Your task to perform on an android device: Open display settings Image 0: 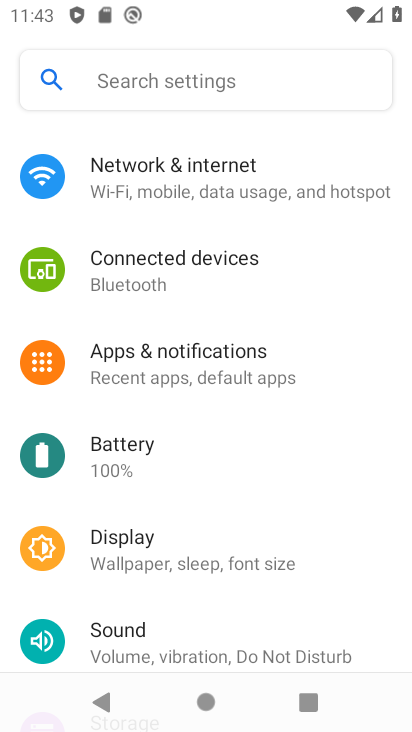
Step 0: press home button
Your task to perform on an android device: Open display settings Image 1: 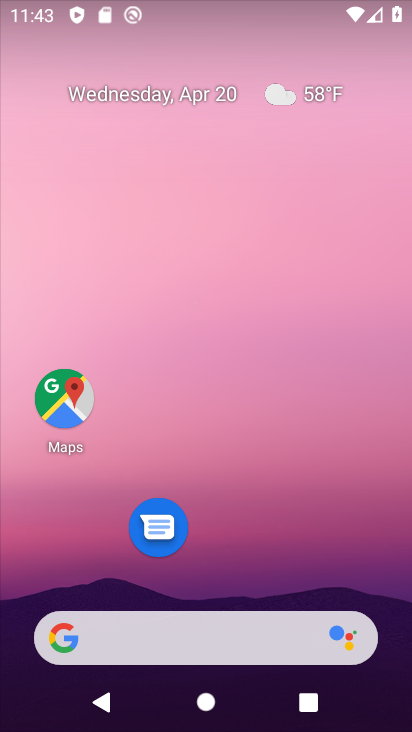
Step 1: drag from (224, 638) to (224, 98)
Your task to perform on an android device: Open display settings Image 2: 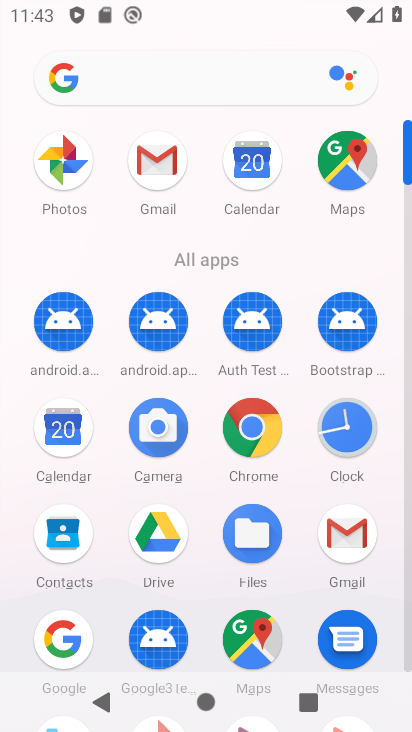
Step 2: drag from (208, 633) to (192, 233)
Your task to perform on an android device: Open display settings Image 3: 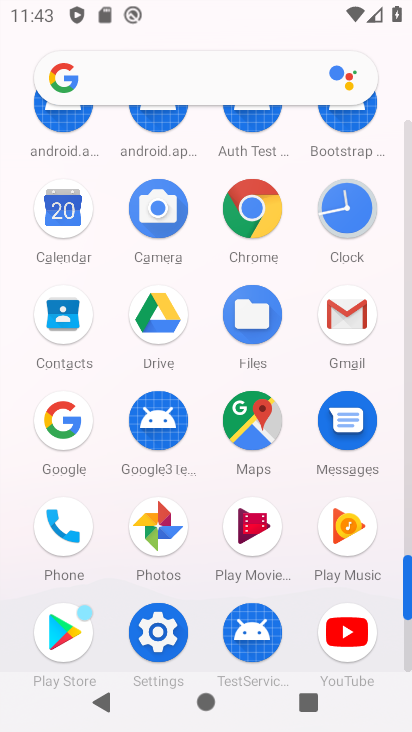
Step 3: click (160, 641)
Your task to perform on an android device: Open display settings Image 4: 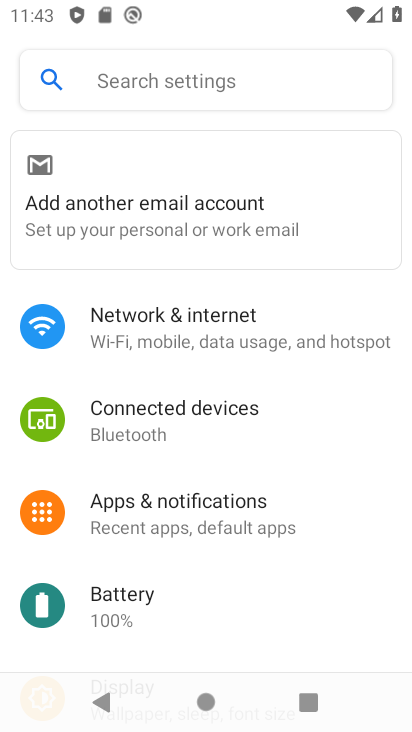
Step 4: drag from (200, 619) to (212, 227)
Your task to perform on an android device: Open display settings Image 5: 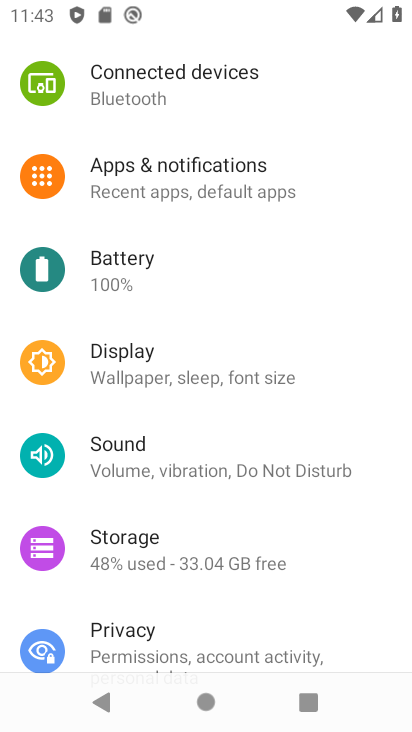
Step 5: click (124, 366)
Your task to perform on an android device: Open display settings Image 6: 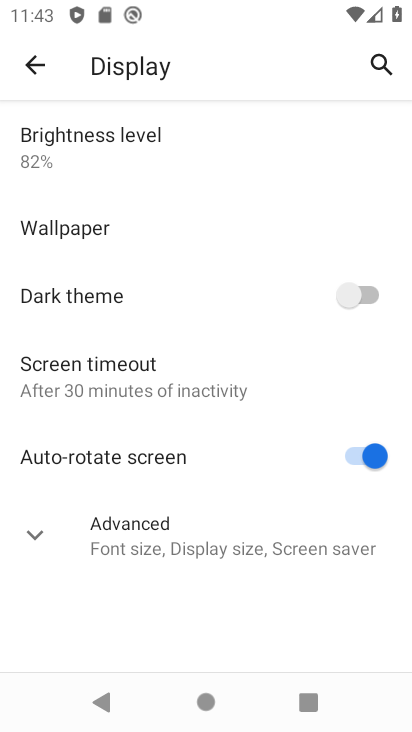
Step 6: task complete